Your task to perform on an android device: View the shopping cart on target.com. Image 0: 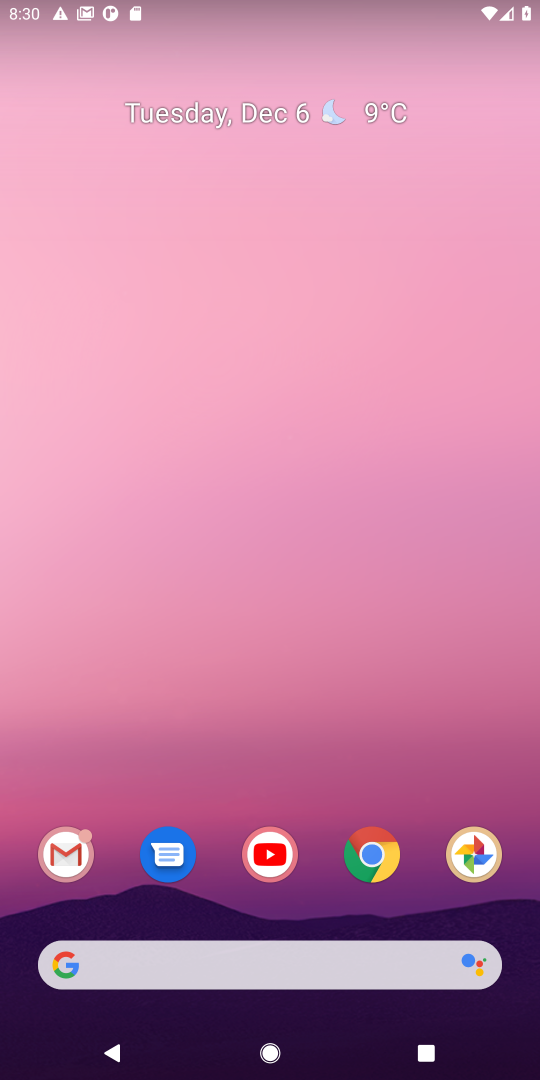
Step 0: click (377, 879)
Your task to perform on an android device: View the shopping cart on target.com. Image 1: 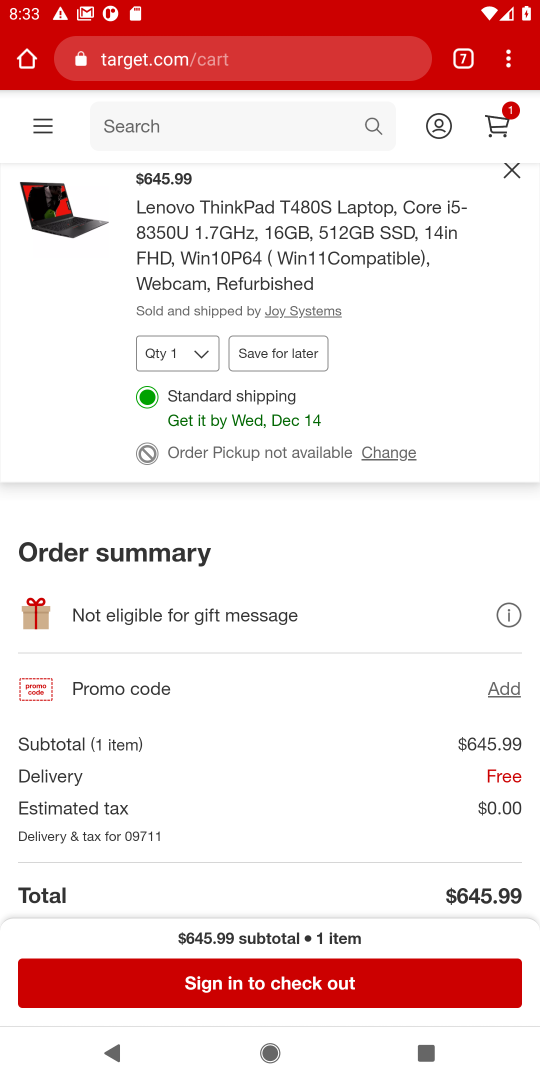
Step 1: task complete